Your task to perform on an android device: Open Reddit.com Image 0: 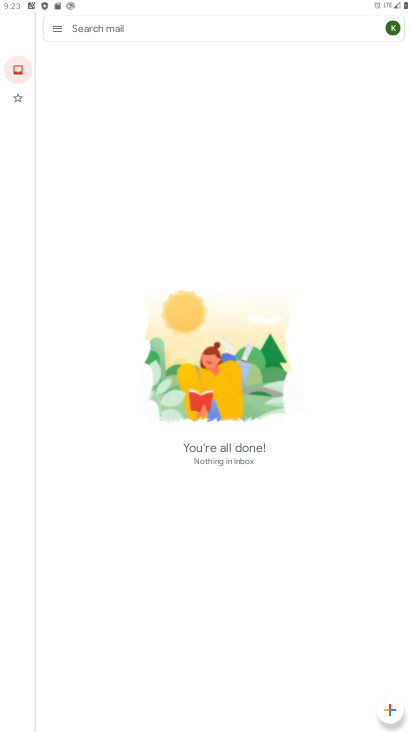
Step 0: press home button
Your task to perform on an android device: Open Reddit.com Image 1: 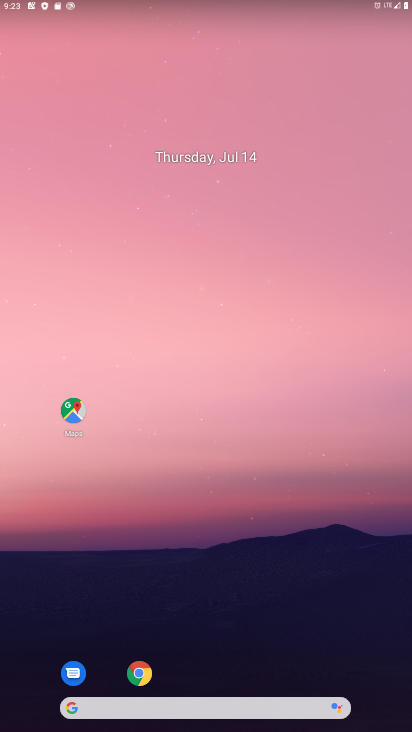
Step 1: click (140, 677)
Your task to perform on an android device: Open Reddit.com Image 2: 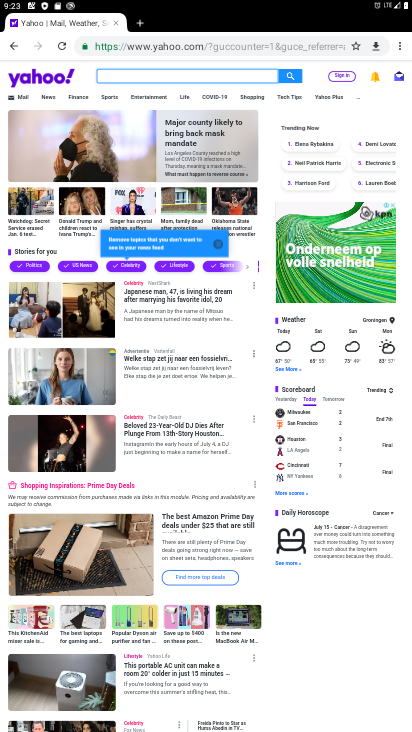
Step 2: click (198, 50)
Your task to perform on an android device: Open Reddit.com Image 3: 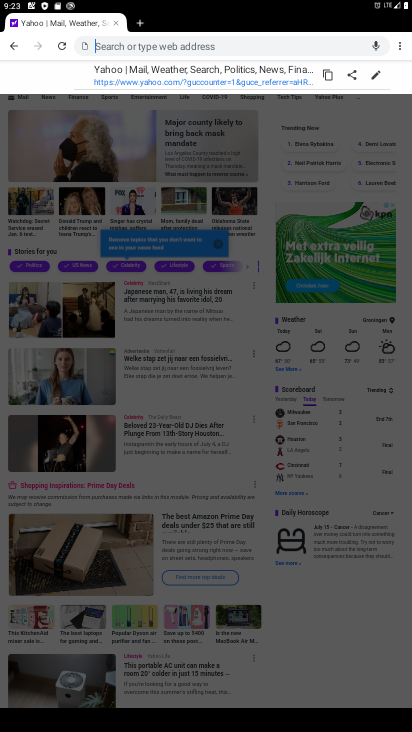
Step 3: type "Reddit.com"
Your task to perform on an android device: Open Reddit.com Image 4: 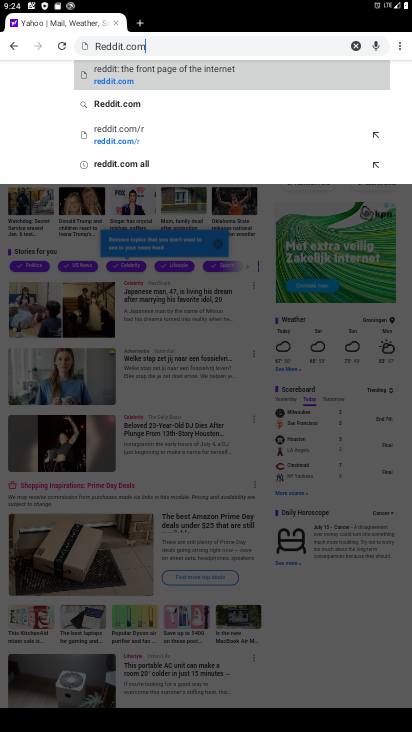
Step 4: click (139, 101)
Your task to perform on an android device: Open Reddit.com Image 5: 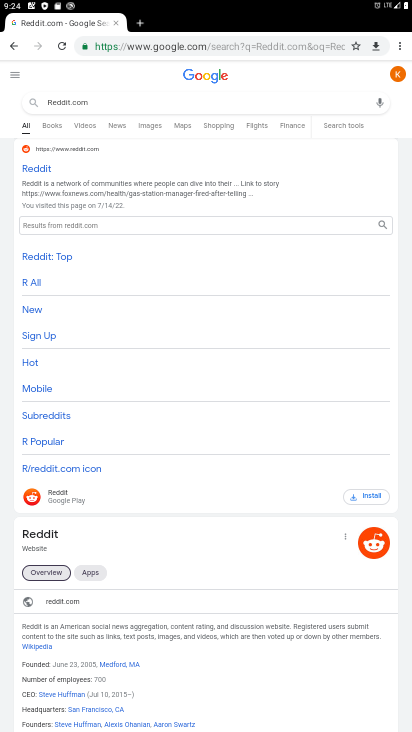
Step 5: click (38, 173)
Your task to perform on an android device: Open Reddit.com Image 6: 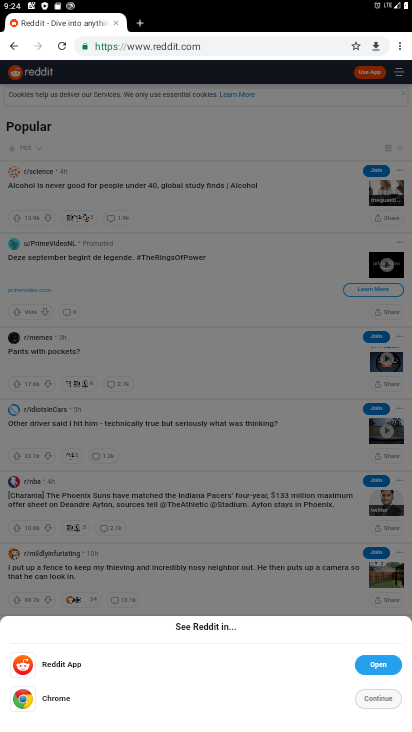
Step 6: click (382, 708)
Your task to perform on an android device: Open Reddit.com Image 7: 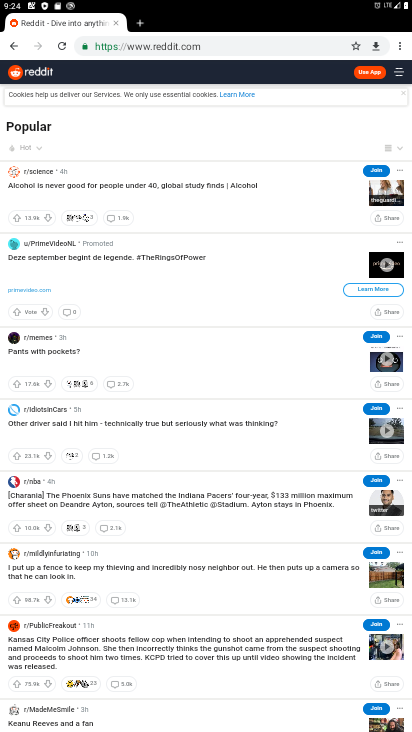
Step 7: task complete